Your task to perform on an android device: change keyboard looks Image 0: 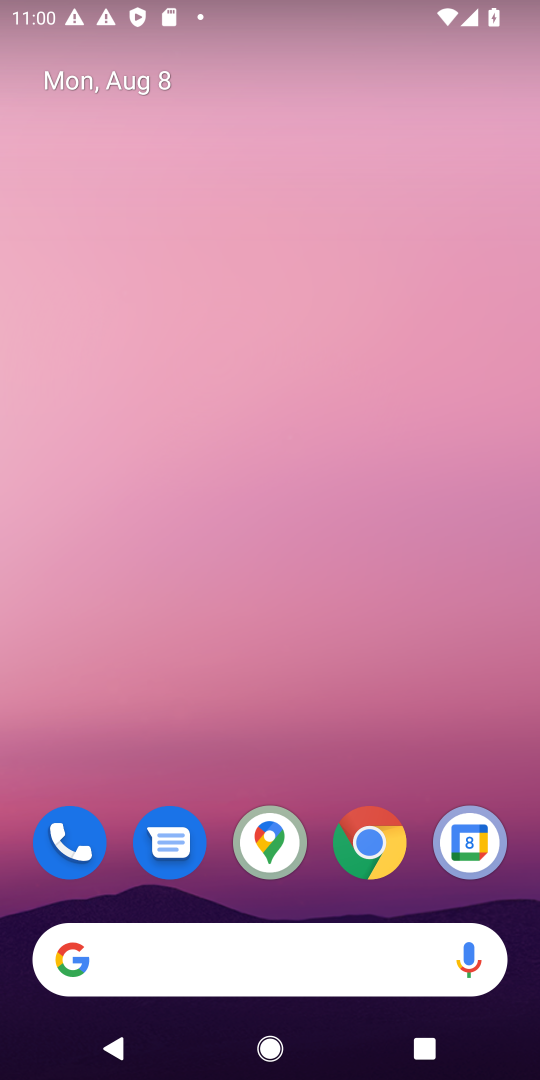
Step 0: drag from (324, 765) to (355, 134)
Your task to perform on an android device: change keyboard looks Image 1: 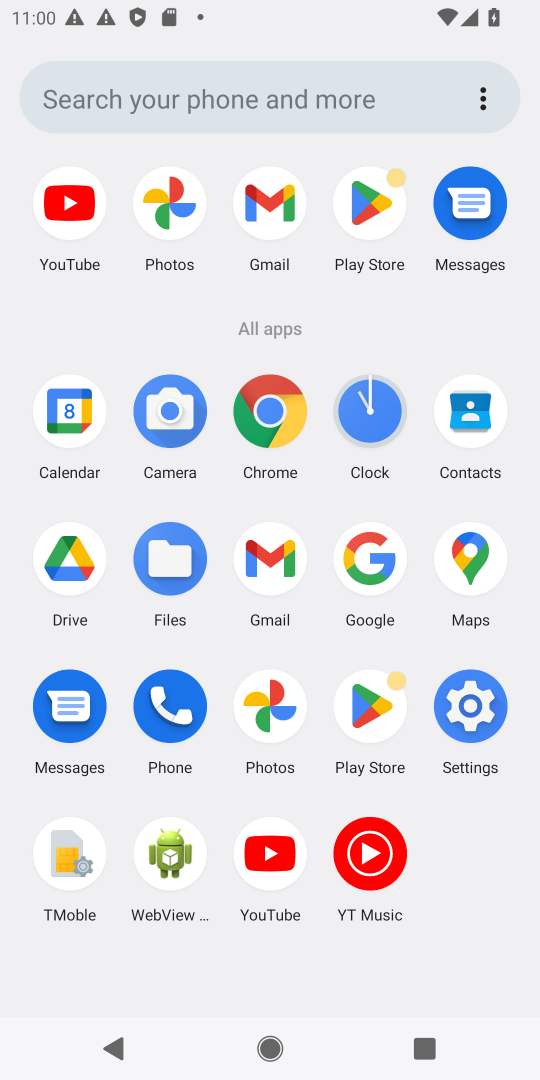
Step 1: click (474, 687)
Your task to perform on an android device: change keyboard looks Image 2: 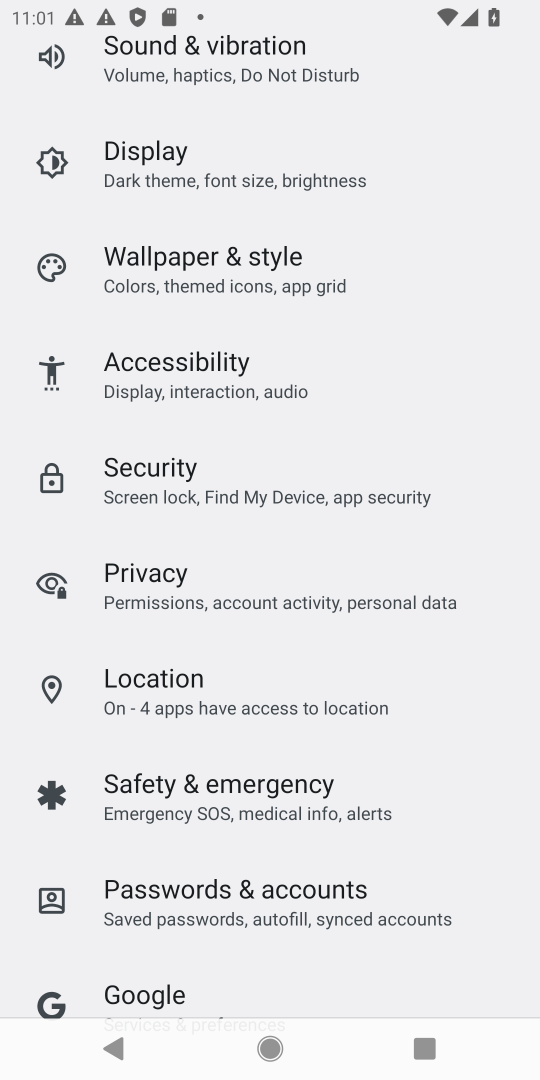
Step 2: drag from (365, 268) to (365, 1014)
Your task to perform on an android device: change keyboard looks Image 3: 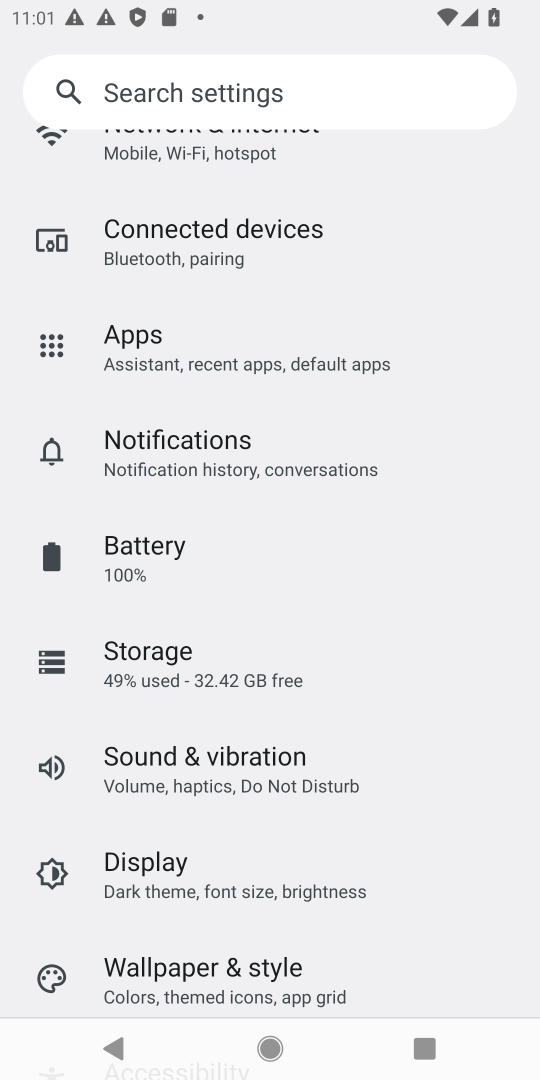
Step 3: click (267, 78)
Your task to perform on an android device: change keyboard looks Image 4: 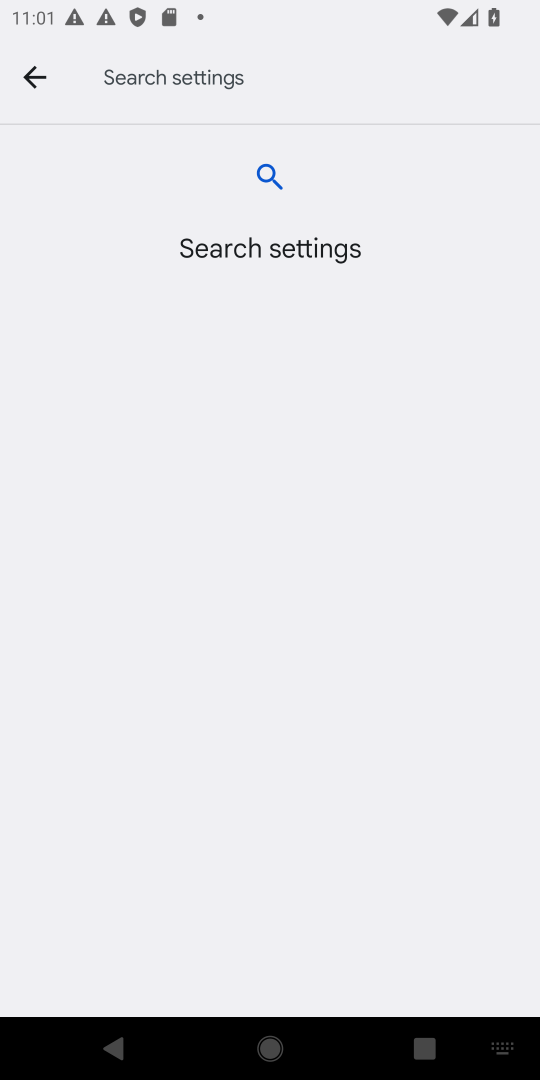
Step 4: type "keyboard"
Your task to perform on an android device: change keyboard looks Image 5: 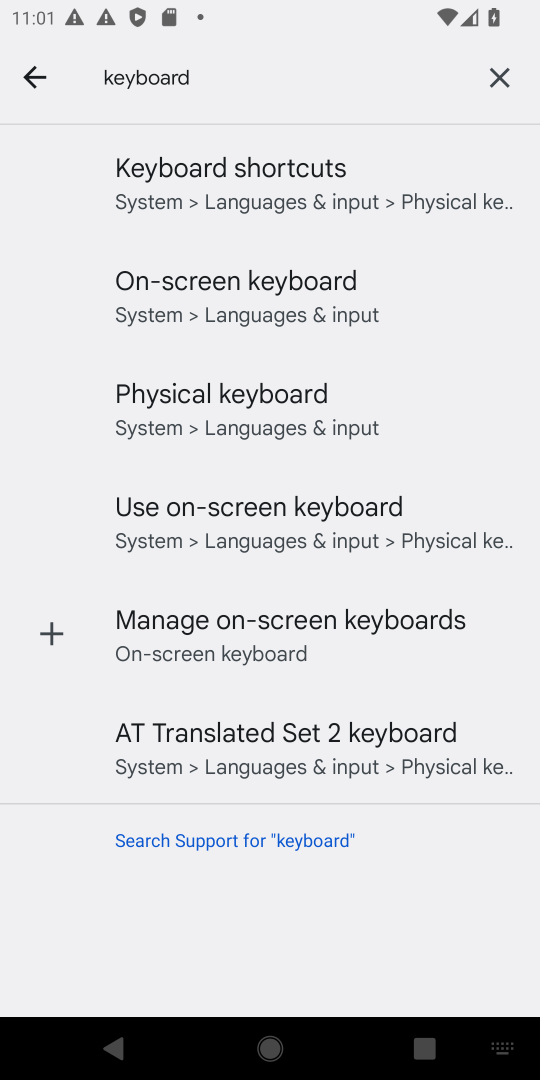
Step 5: click (193, 166)
Your task to perform on an android device: change keyboard looks Image 6: 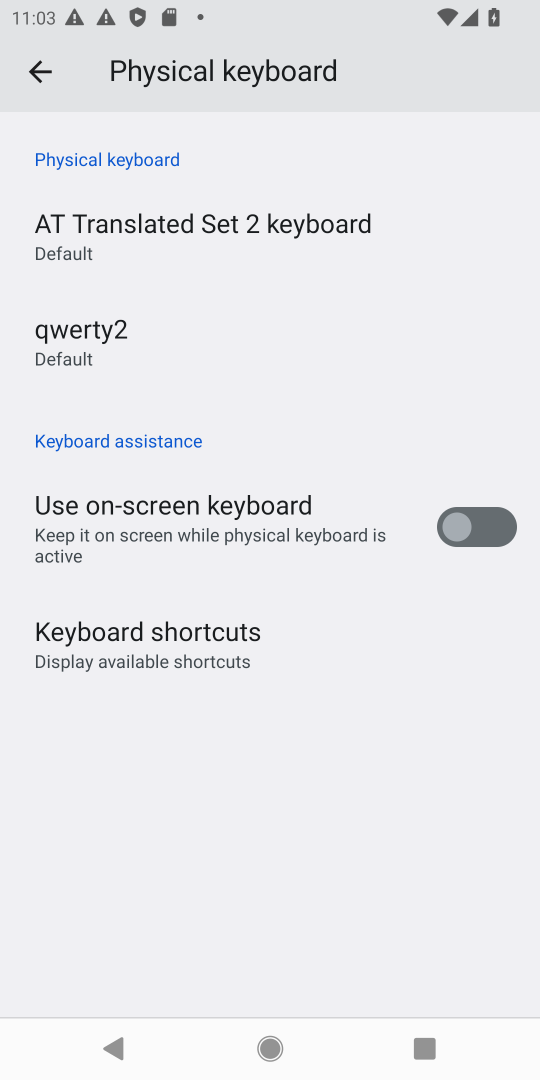
Step 6: task complete